Your task to perform on an android device: snooze an email in the gmail app Image 0: 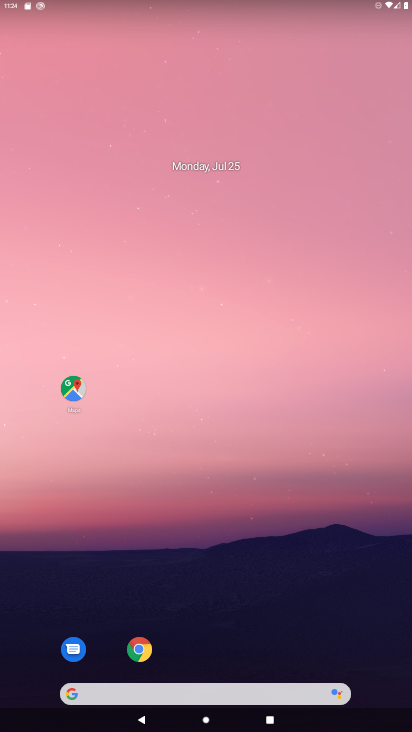
Step 0: drag from (394, 676) to (337, 162)
Your task to perform on an android device: snooze an email in the gmail app Image 1: 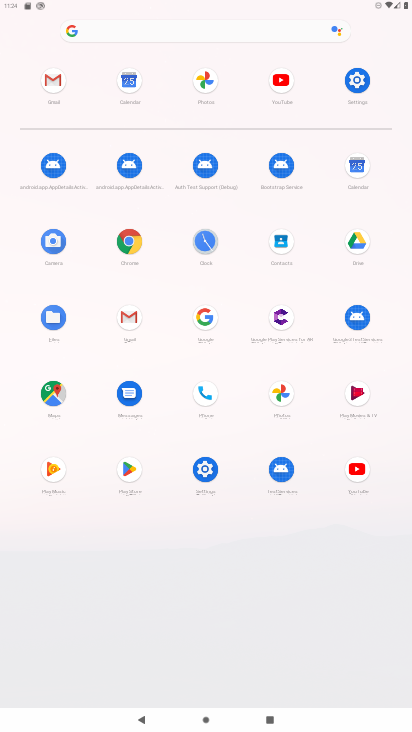
Step 1: click (130, 318)
Your task to perform on an android device: snooze an email in the gmail app Image 2: 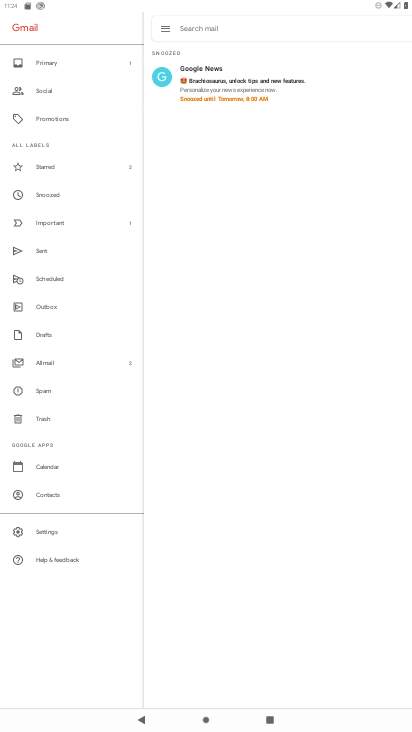
Step 2: click (36, 195)
Your task to perform on an android device: snooze an email in the gmail app Image 3: 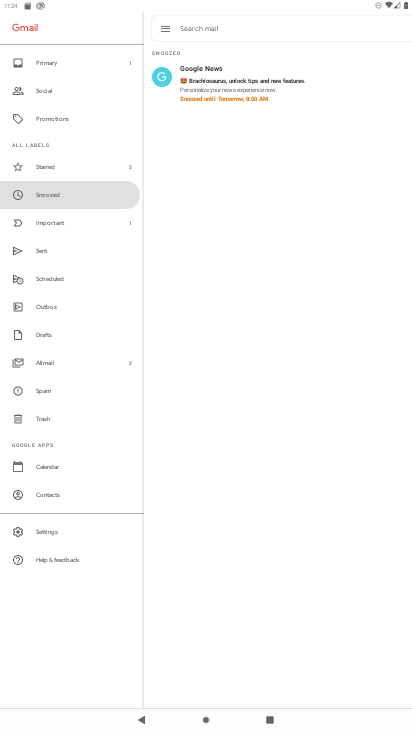
Step 3: click (45, 364)
Your task to perform on an android device: snooze an email in the gmail app Image 4: 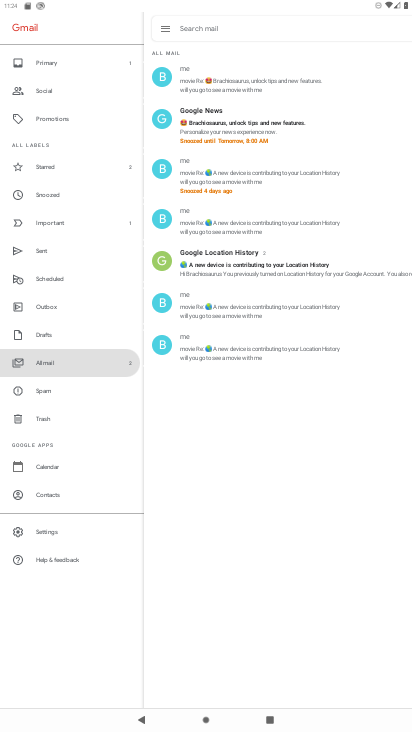
Step 4: click (199, 219)
Your task to perform on an android device: snooze an email in the gmail app Image 5: 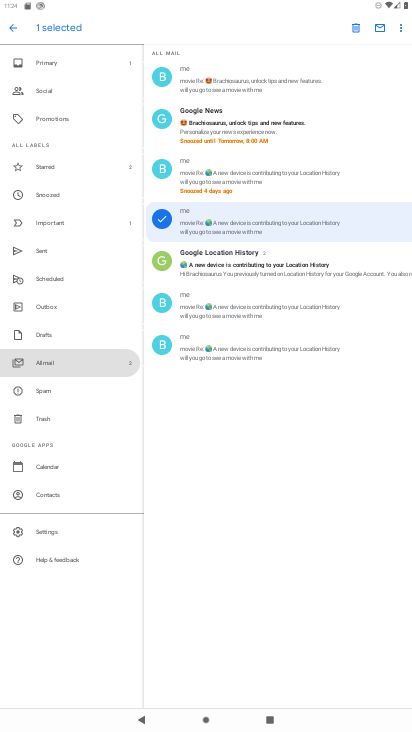
Step 5: click (405, 32)
Your task to perform on an android device: snooze an email in the gmail app Image 6: 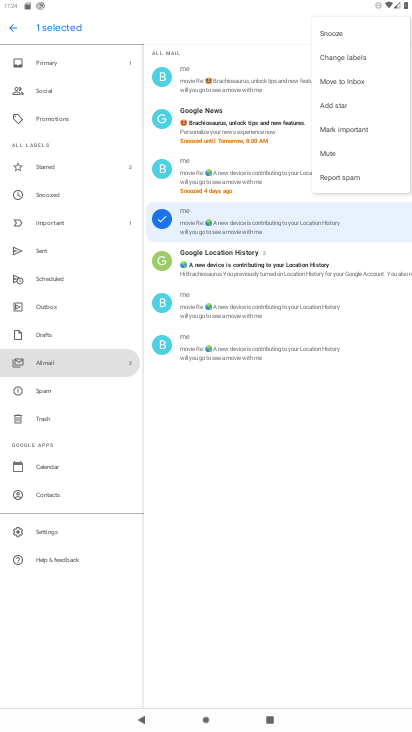
Step 6: click (330, 31)
Your task to perform on an android device: snooze an email in the gmail app Image 7: 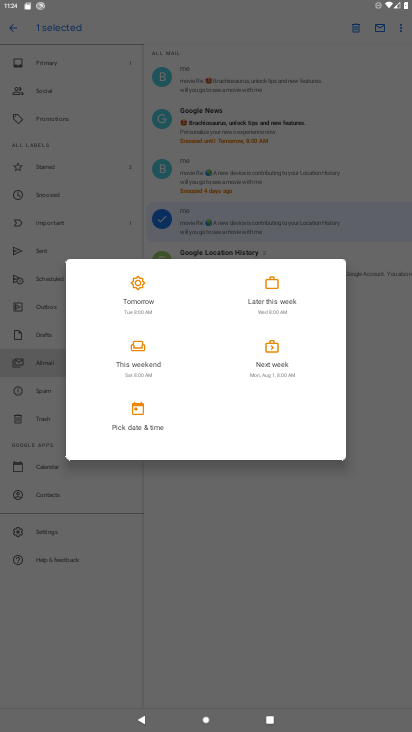
Step 7: click (143, 293)
Your task to perform on an android device: snooze an email in the gmail app Image 8: 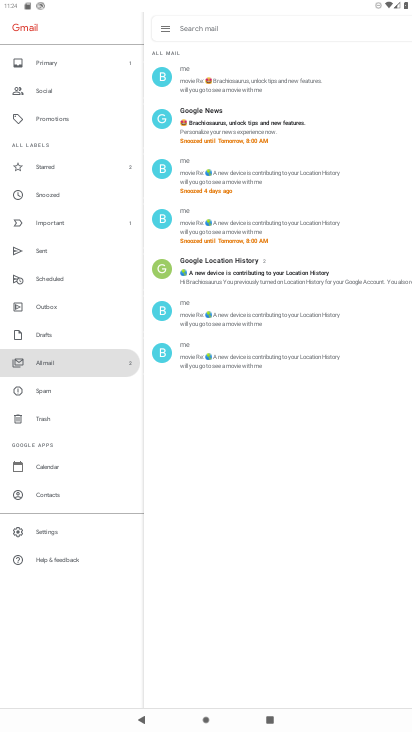
Step 8: task complete